Your task to perform on an android device: Search for seafood restaurants on Google Maps Image 0: 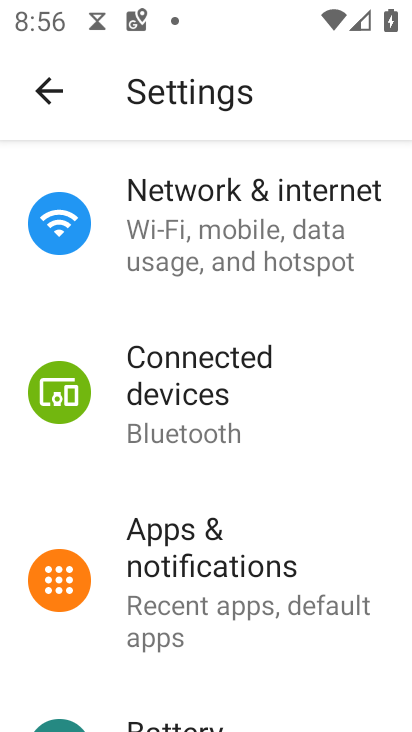
Step 0: press home button
Your task to perform on an android device: Search for seafood restaurants on Google Maps Image 1: 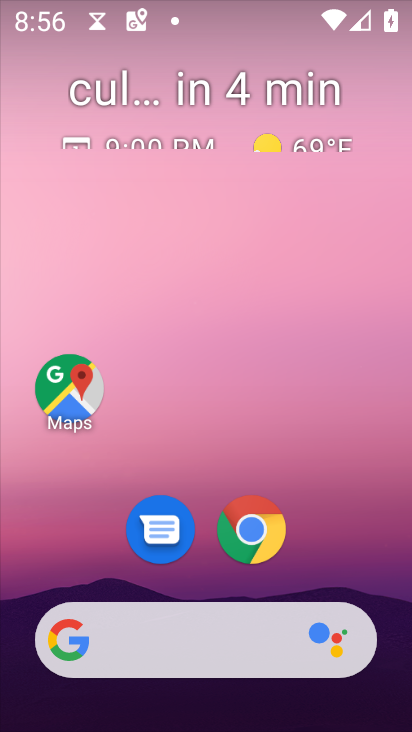
Step 1: click (55, 401)
Your task to perform on an android device: Search for seafood restaurants on Google Maps Image 2: 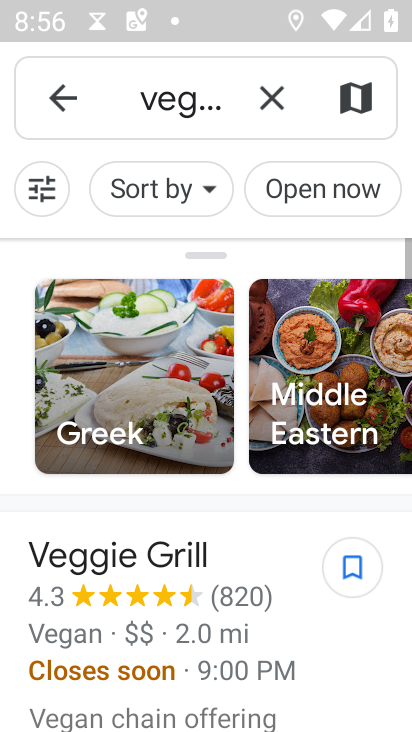
Step 2: click (271, 102)
Your task to perform on an android device: Search for seafood restaurants on Google Maps Image 3: 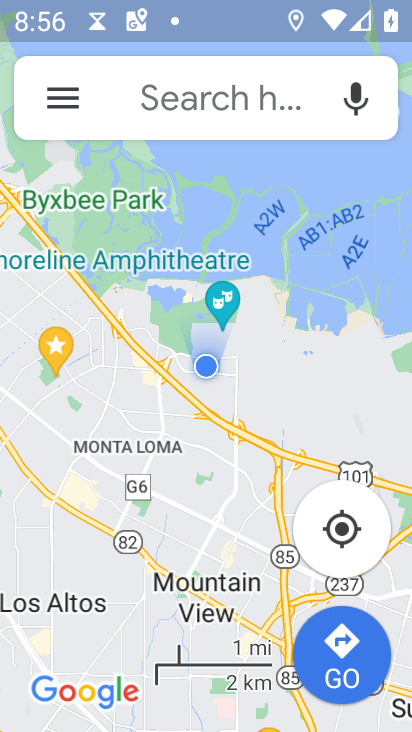
Step 3: click (212, 98)
Your task to perform on an android device: Search for seafood restaurants on Google Maps Image 4: 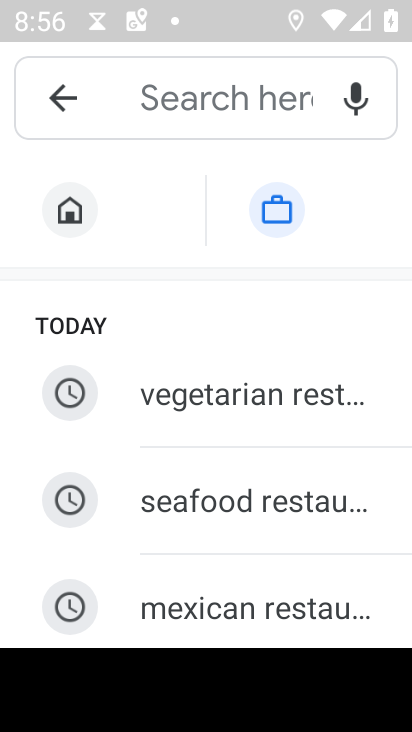
Step 4: click (240, 476)
Your task to perform on an android device: Search for seafood restaurants on Google Maps Image 5: 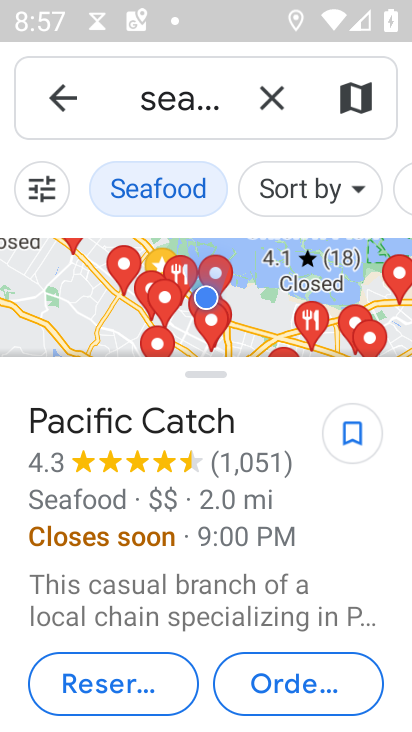
Step 5: task complete